Your task to perform on an android device: toggle show notifications on the lock screen Image 0: 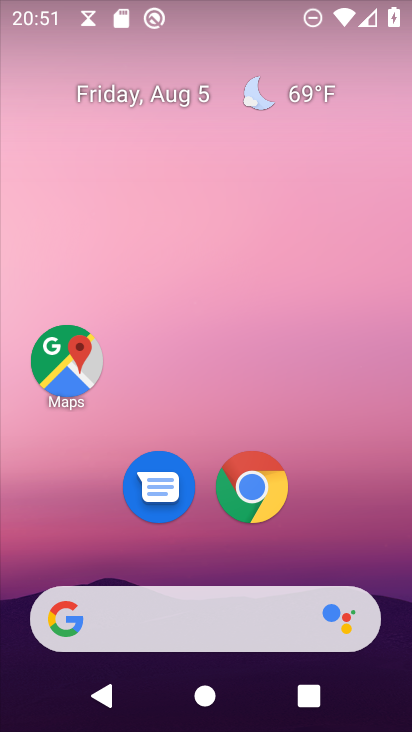
Step 0: press home button
Your task to perform on an android device: toggle show notifications on the lock screen Image 1: 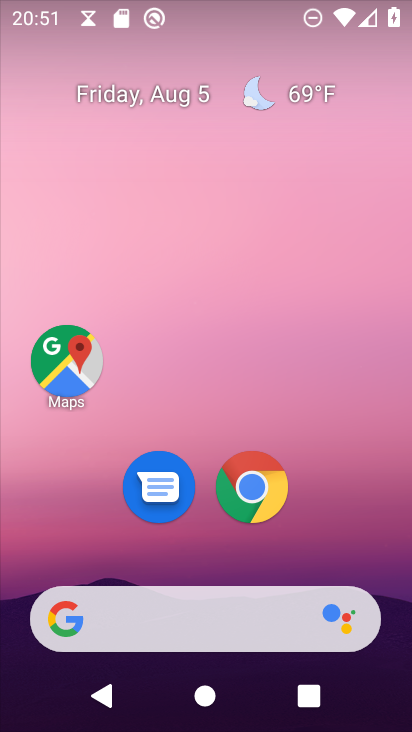
Step 1: drag from (177, 619) to (265, 90)
Your task to perform on an android device: toggle show notifications on the lock screen Image 2: 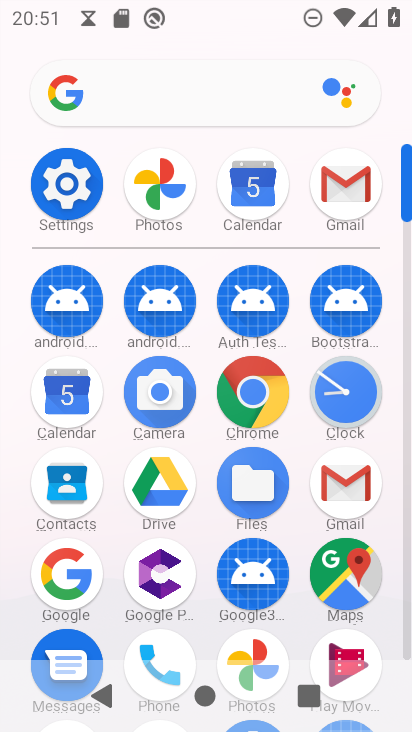
Step 2: click (67, 192)
Your task to perform on an android device: toggle show notifications on the lock screen Image 3: 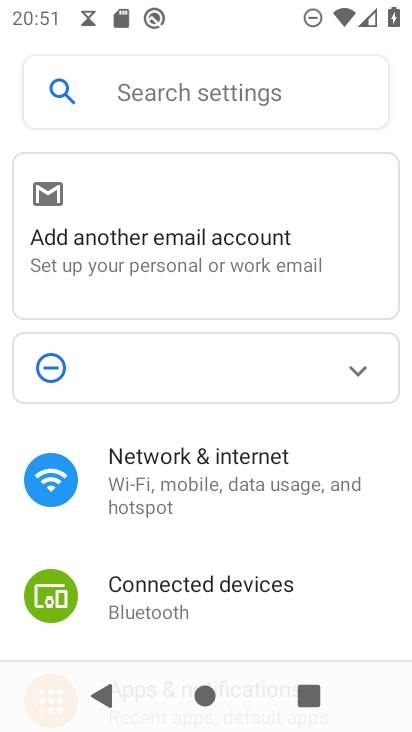
Step 3: drag from (248, 635) to (334, 114)
Your task to perform on an android device: toggle show notifications on the lock screen Image 4: 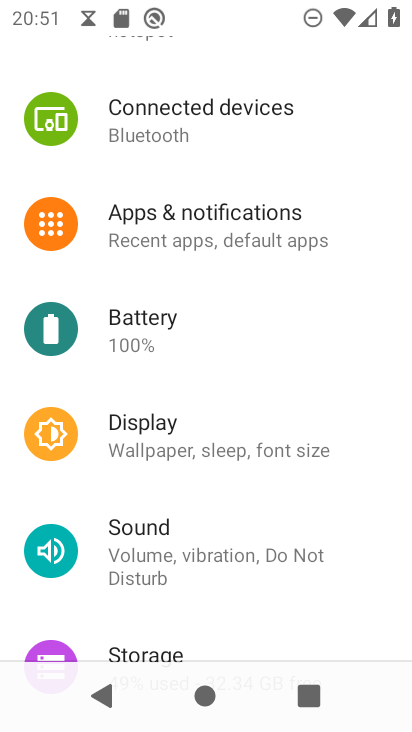
Step 4: click (267, 230)
Your task to perform on an android device: toggle show notifications on the lock screen Image 5: 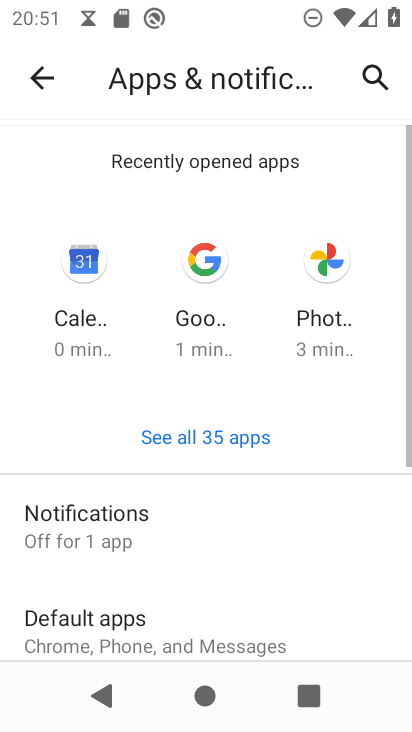
Step 5: click (100, 522)
Your task to perform on an android device: toggle show notifications on the lock screen Image 6: 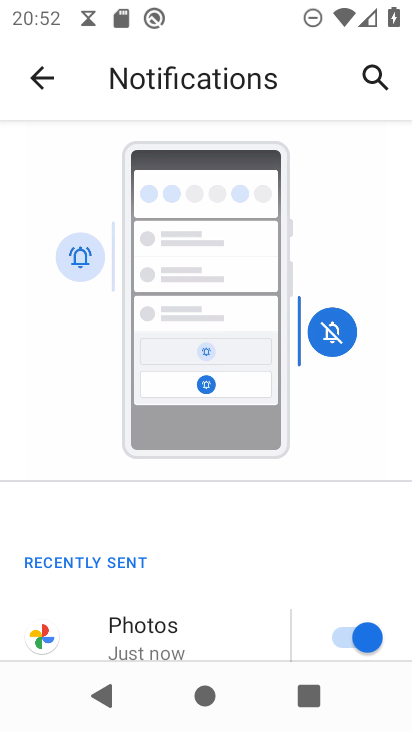
Step 6: drag from (233, 614) to (327, 94)
Your task to perform on an android device: toggle show notifications on the lock screen Image 7: 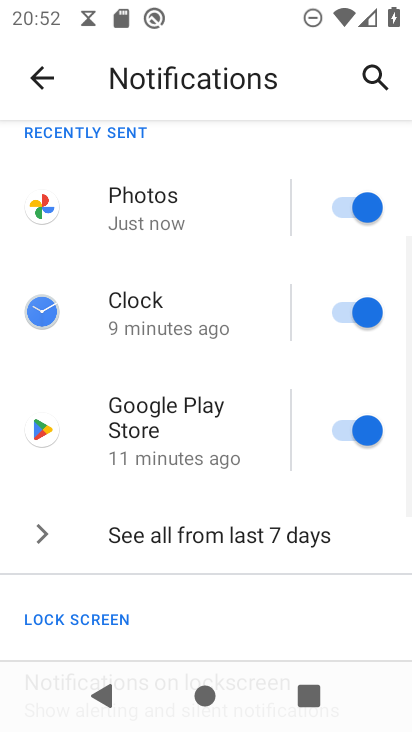
Step 7: drag from (243, 514) to (326, 61)
Your task to perform on an android device: toggle show notifications on the lock screen Image 8: 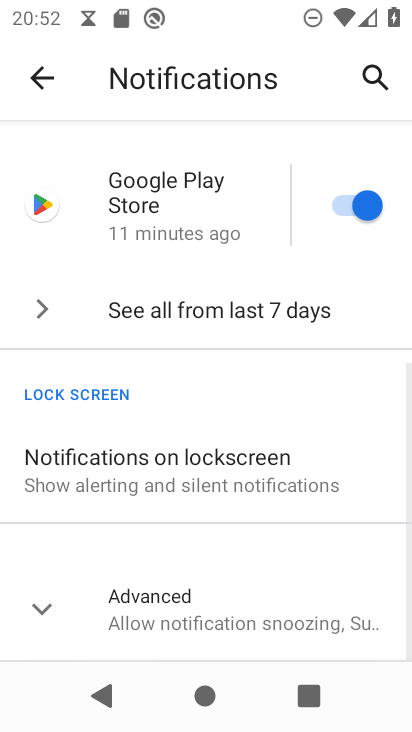
Step 8: click (200, 468)
Your task to perform on an android device: toggle show notifications on the lock screen Image 9: 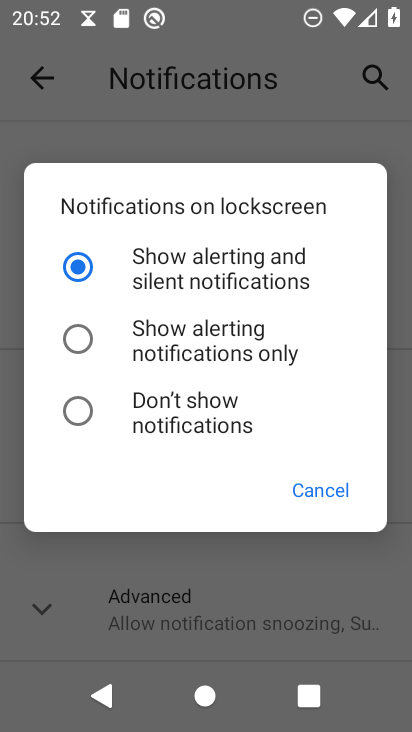
Step 9: click (70, 408)
Your task to perform on an android device: toggle show notifications on the lock screen Image 10: 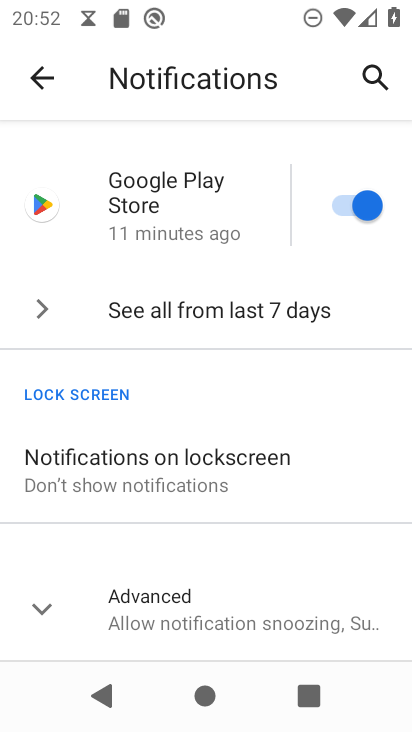
Step 10: task complete